Your task to perform on an android device: Go to Wikipedia Image 0: 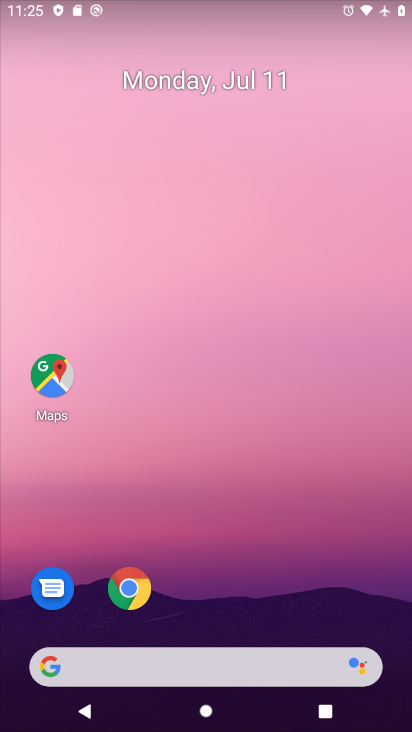
Step 0: click (136, 586)
Your task to perform on an android device: Go to Wikipedia Image 1: 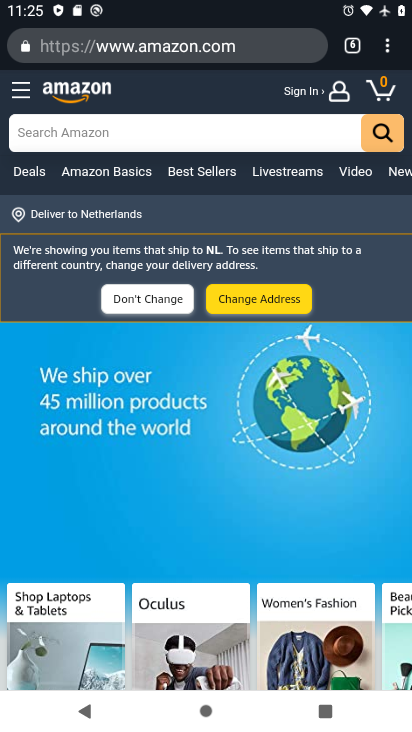
Step 1: drag from (384, 47) to (259, 94)
Your task to perform on an android device: Go to Wikipedia Image 2: 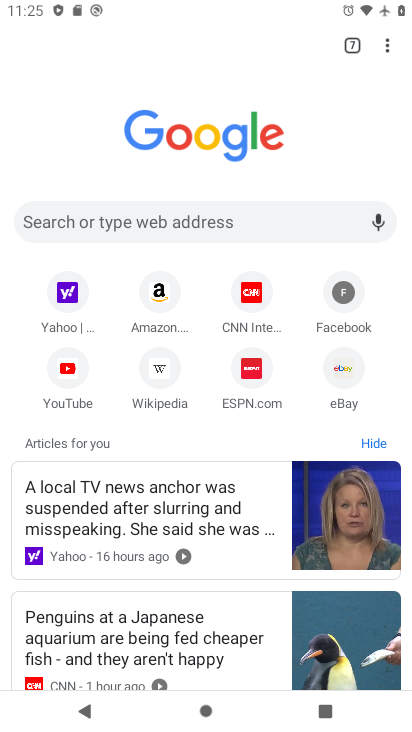
Step 2: click (155, 375)
Your task to perform on an android device: Go to Wikipedia Image 3: 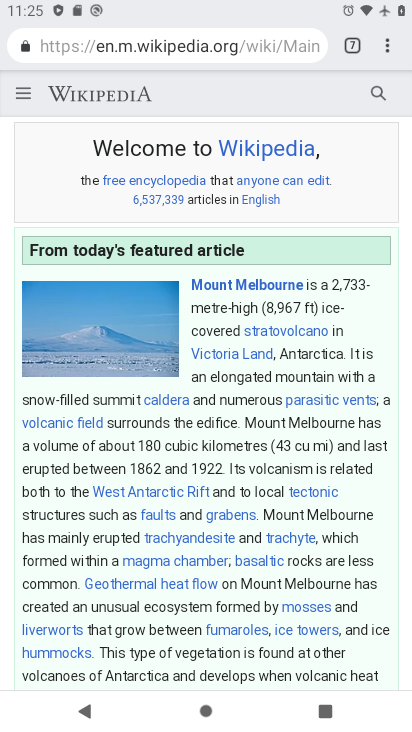
Step 3: task complete